Your task to perform on an android device: Open calendar and show me the fourth week of next month Image 0: 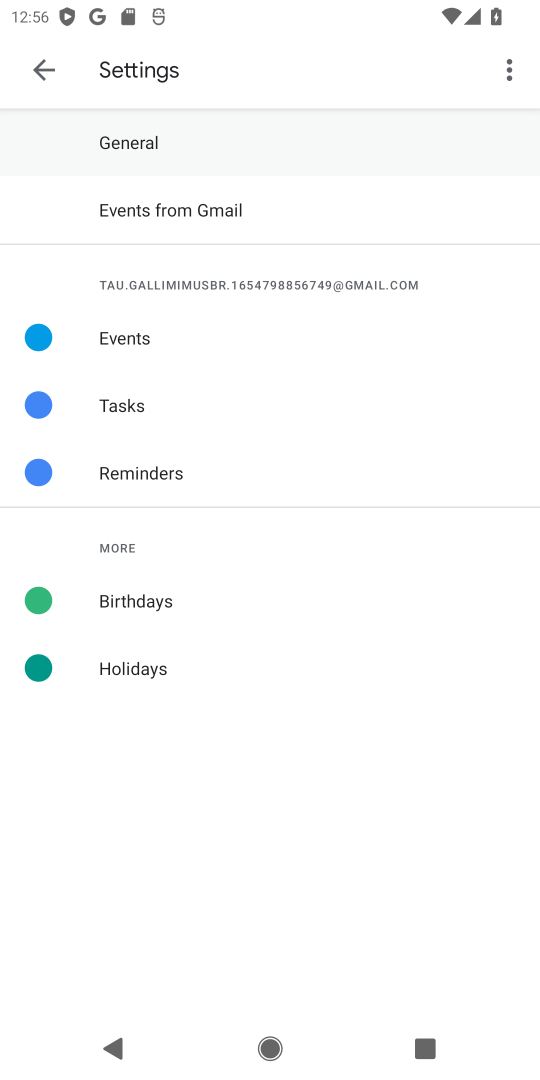
Step 0: press home button
Your task to perform on an android device: Open calendar and show me the fourth week of next month Image 1: 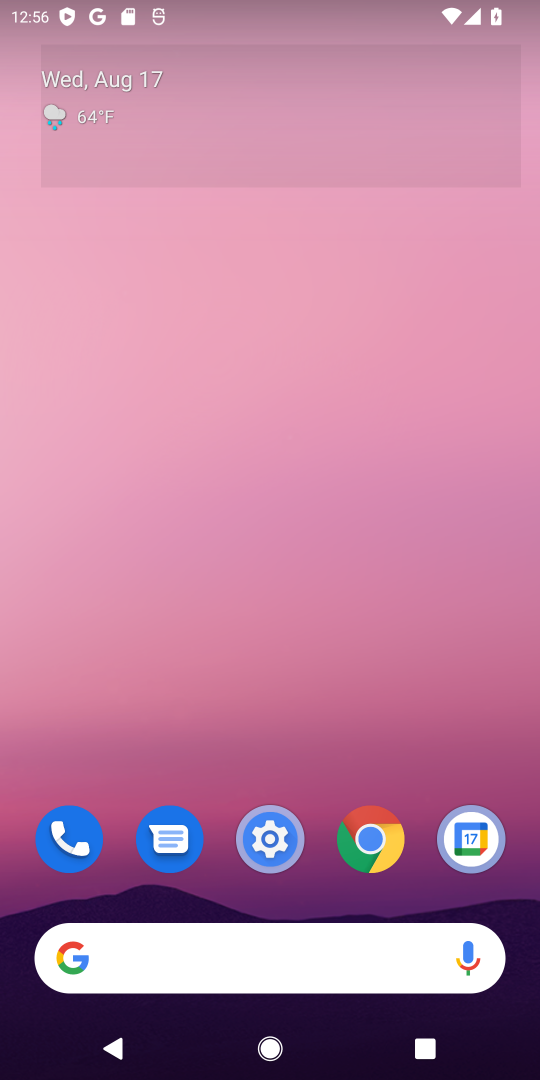
Step 1: drag from (197, 965) to (353, 264)
Your task to perform on an android device: Open calendar and show me the fourth week of next month Image 2: 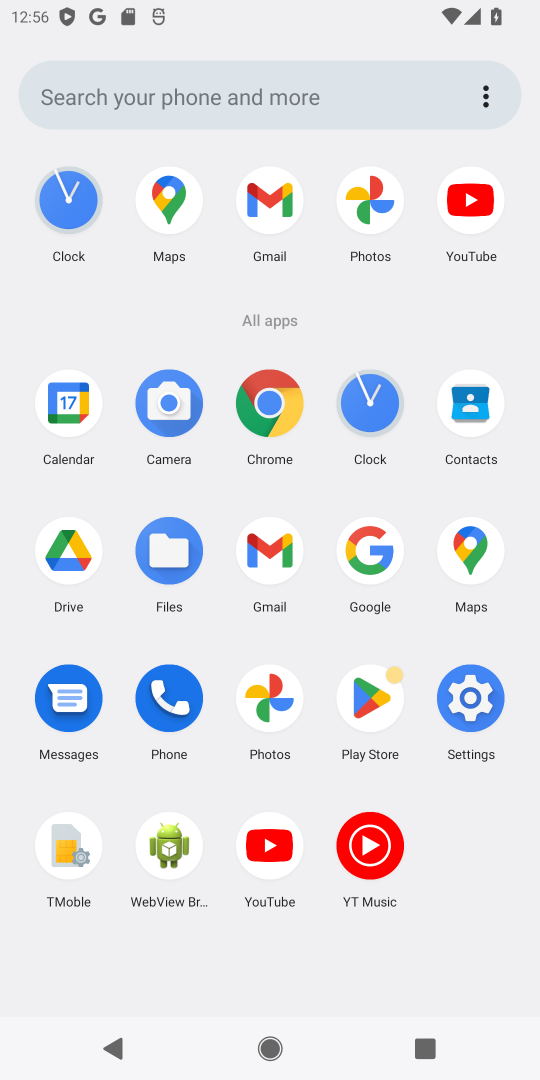
Step 2: click (67, 402)
Your task to perform on an android device: Open calendar and show me the fourth week of next month Image 3: 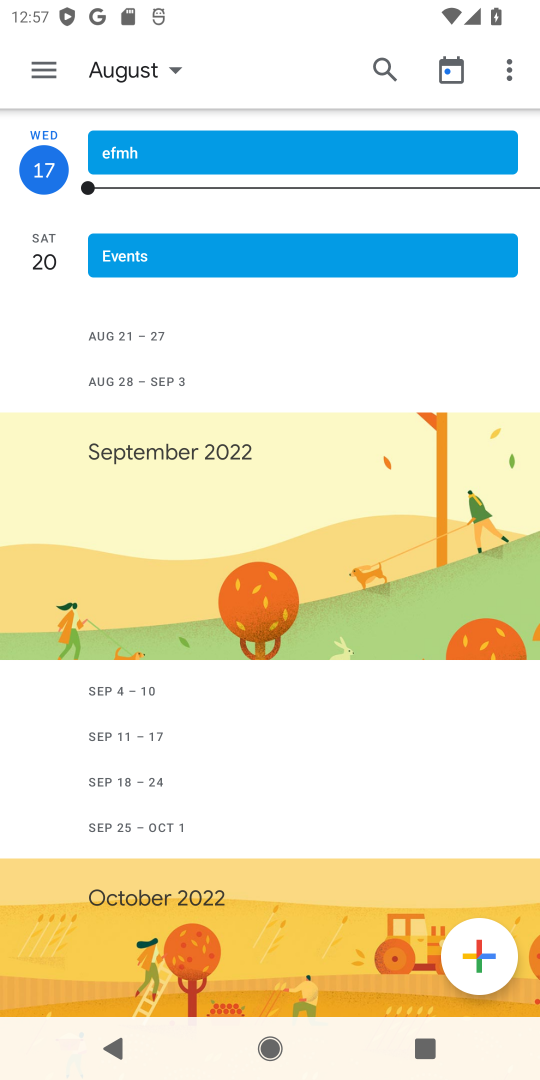
Step 3: click (175, 71)
Your task to perform on an android device: Open calendar and show me the fourth week of next month Image 4: 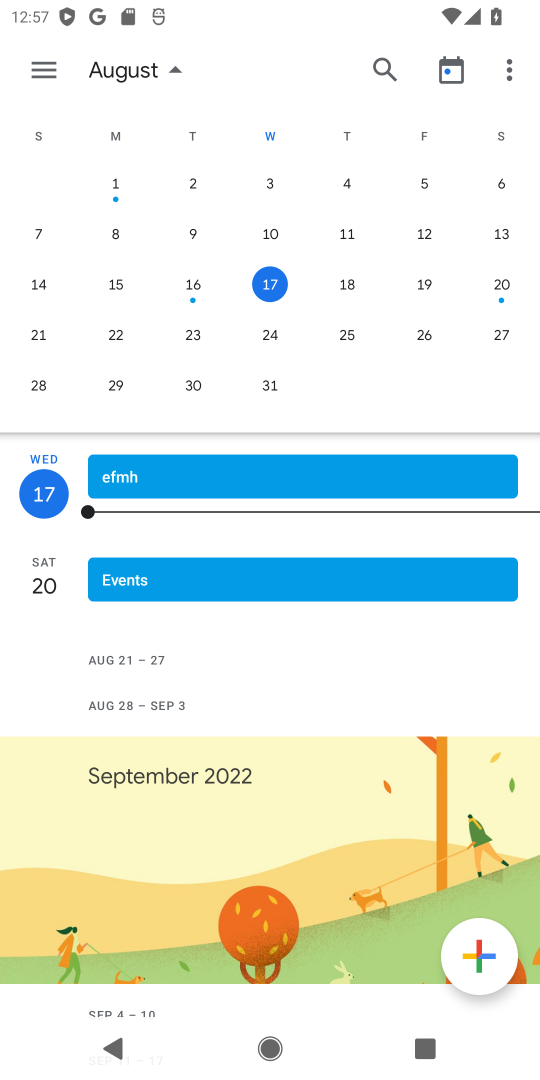
Step 4: drag from (442, 308) to (4, 315)
Your task to perform on an android device: Open calendar and show me the fourth week of next month Image 5: 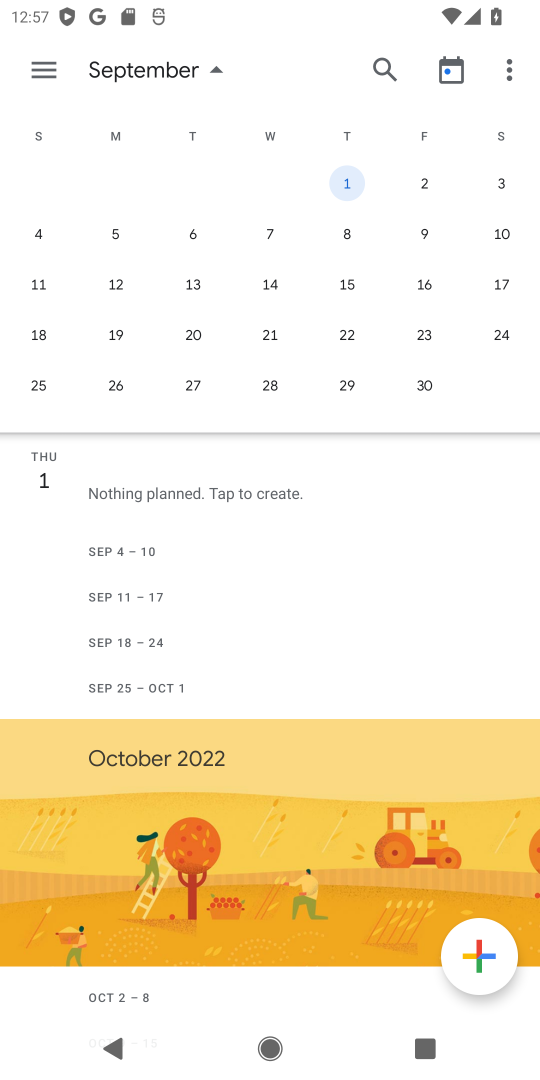
Step 5: click (122, 381)
Your task to perform on an android device: Open calendar and show me the fourth week of next month Image 6: 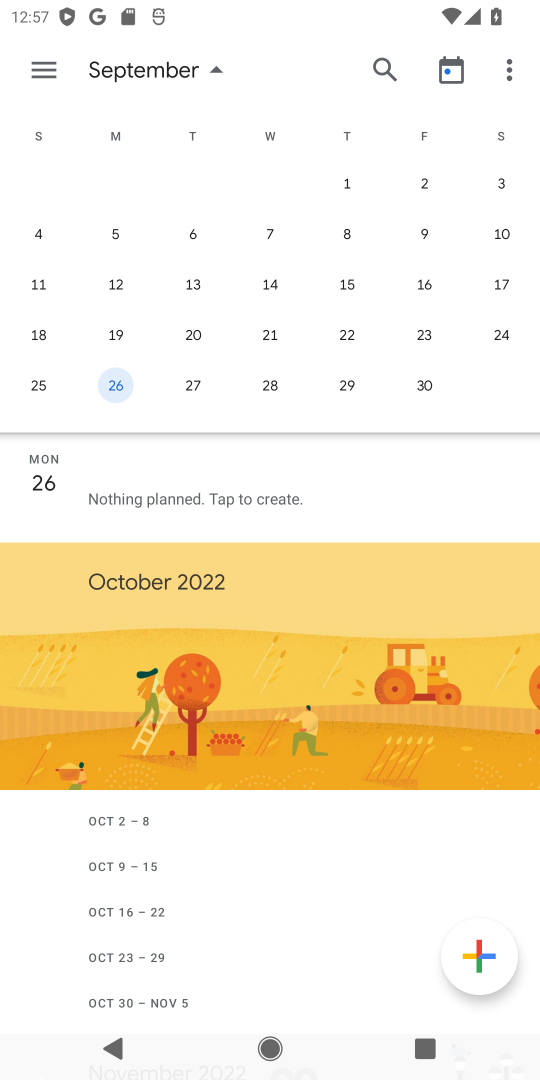
Step 6: click (44, 72)
Your task to perform on an android device: Open calendar and show me the fourth week of next month Image 7: 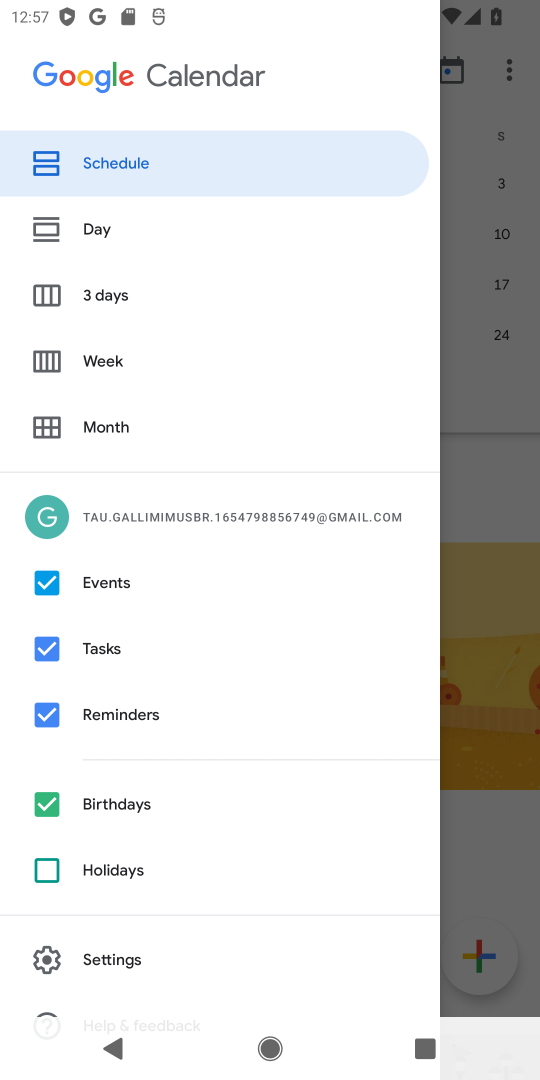
Step 7: click (94, 356)
Your task to perform on an android device: Open calendar and show me the fourth week of next month Image 8: 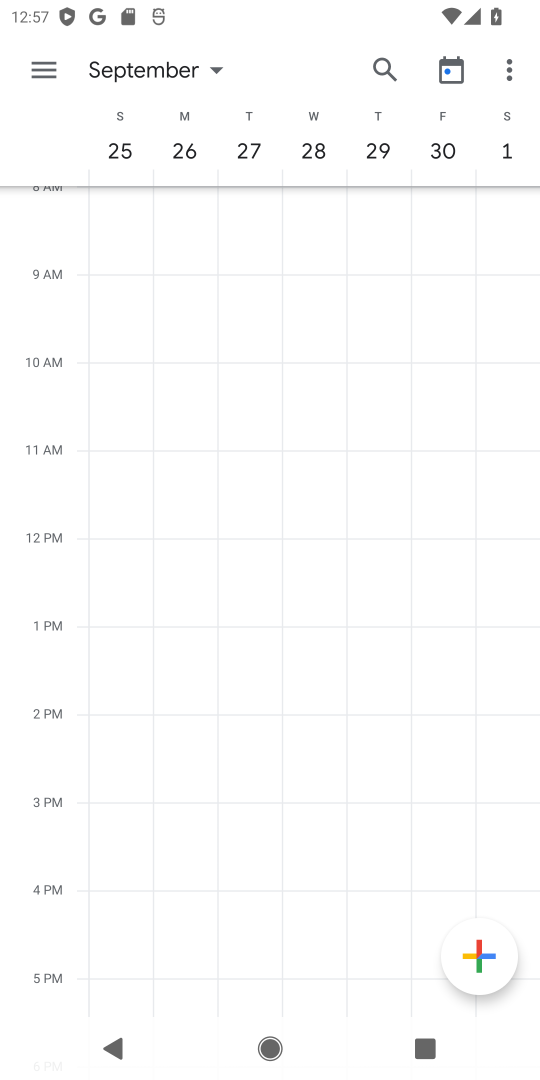
Step 8: task complete